Your task to perform on an android device: turn pop-ups on in chrome Image 0: 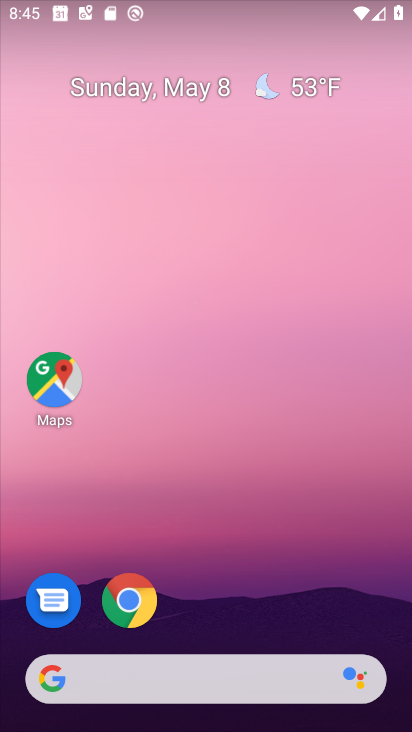
Step 0: drag from (257, 679) to (280, 131)
Your task to perform on an android device: turn pop-ups on in chrome Image 1: 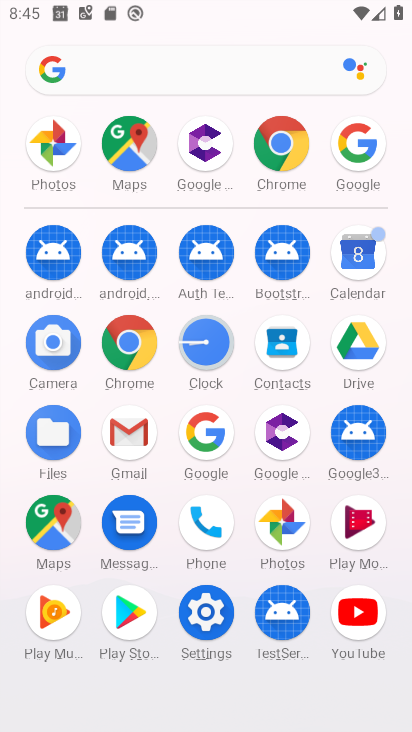
Step 1: click (267, 181)
Your task to perform on an android device: turn pop-ups on in chrome Image 2: 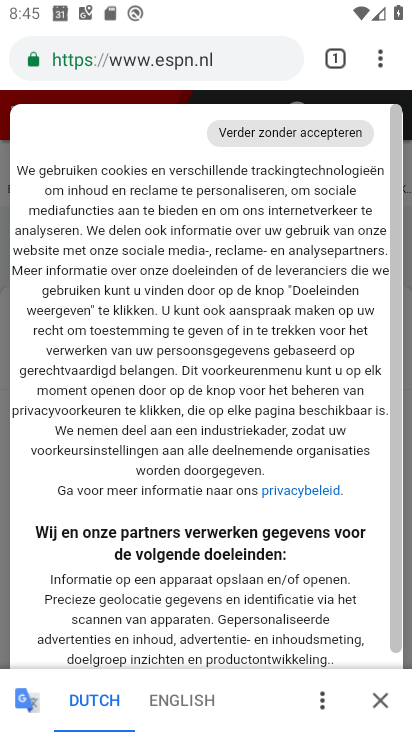
Step 2: task complete